Your task to perform on an android device: Play the last video I watched on Youtube Image 0: 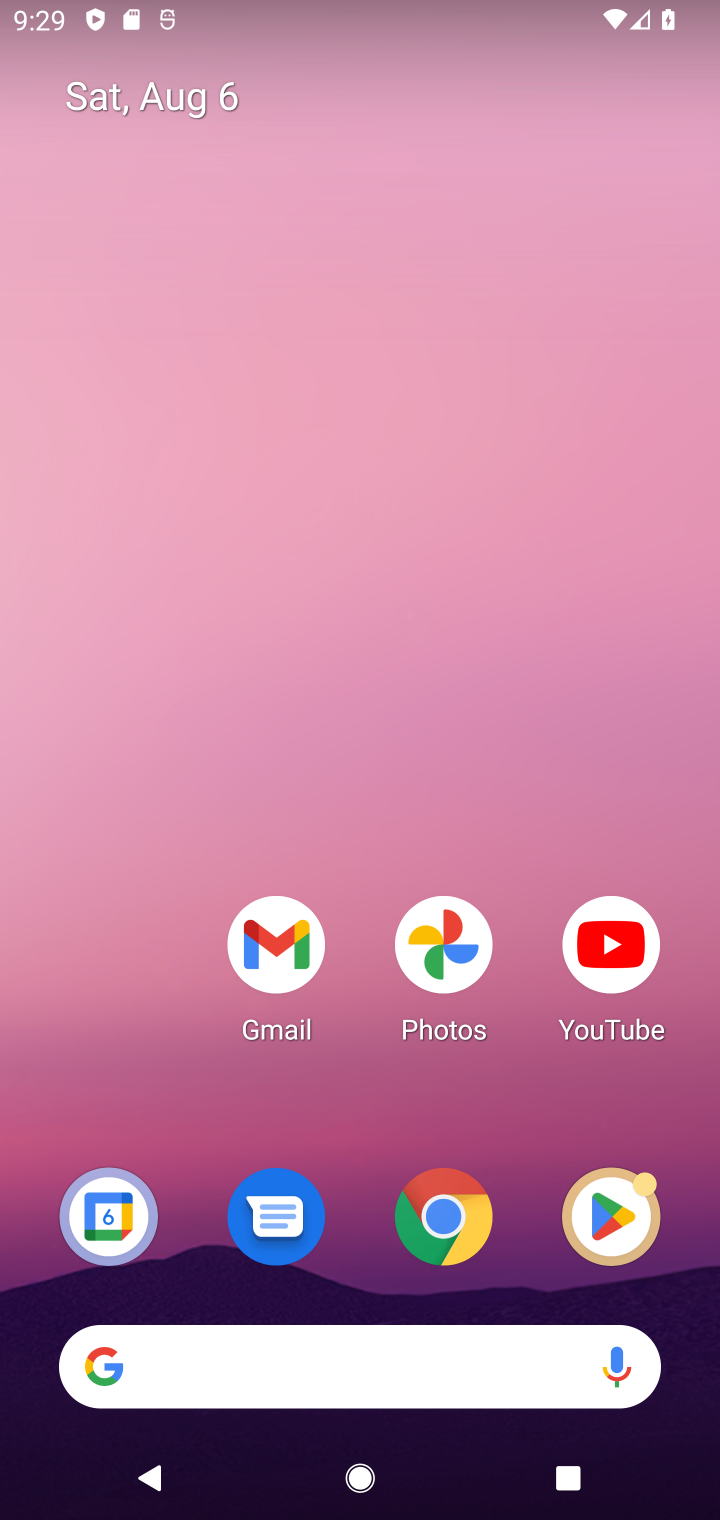
Step 0: drag from (393, 1160) to (383, 351)
Your task to perform on an android device: Play the last video I watched on Youtube Image 1: 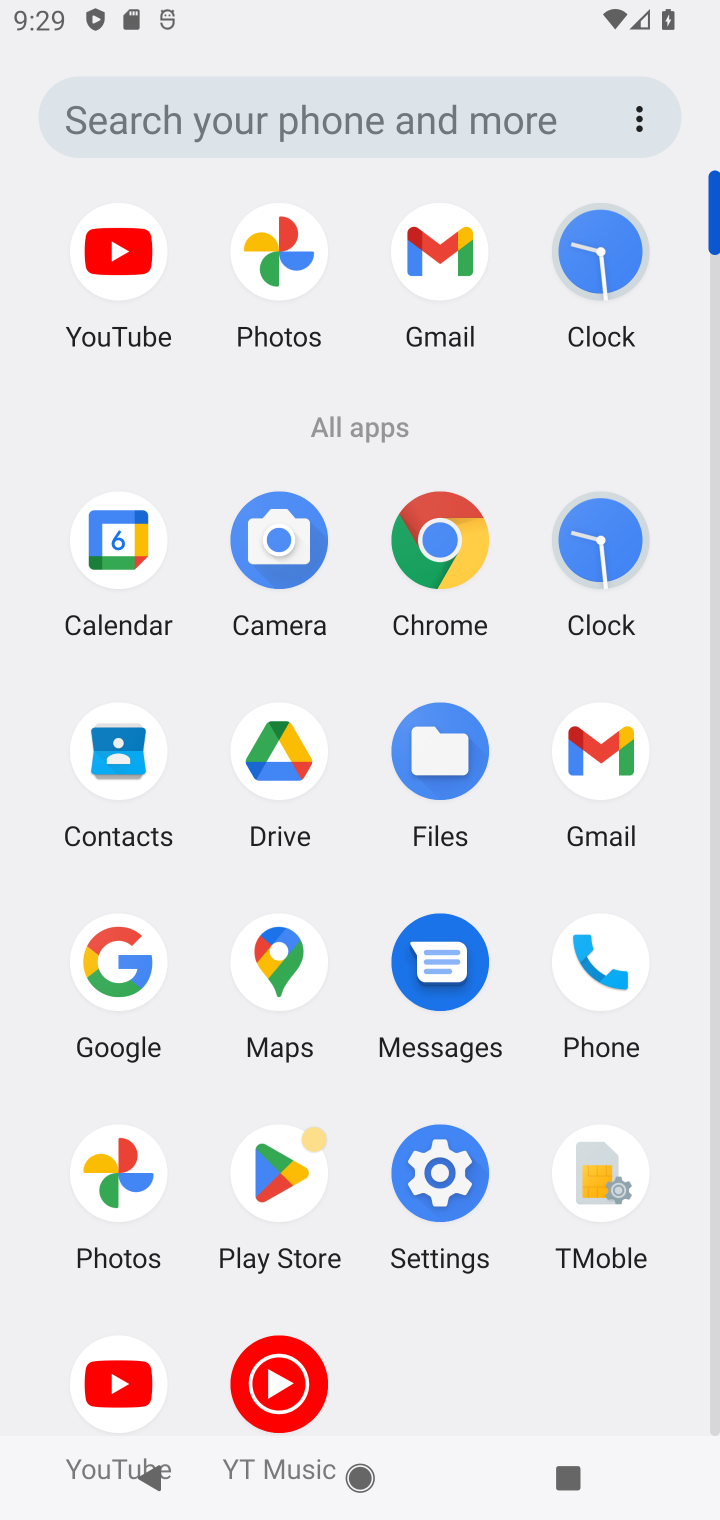
Step 1: click (142, 1389)
Your task to perform on an android device: Play the last video I watched on Youtube Image 2: 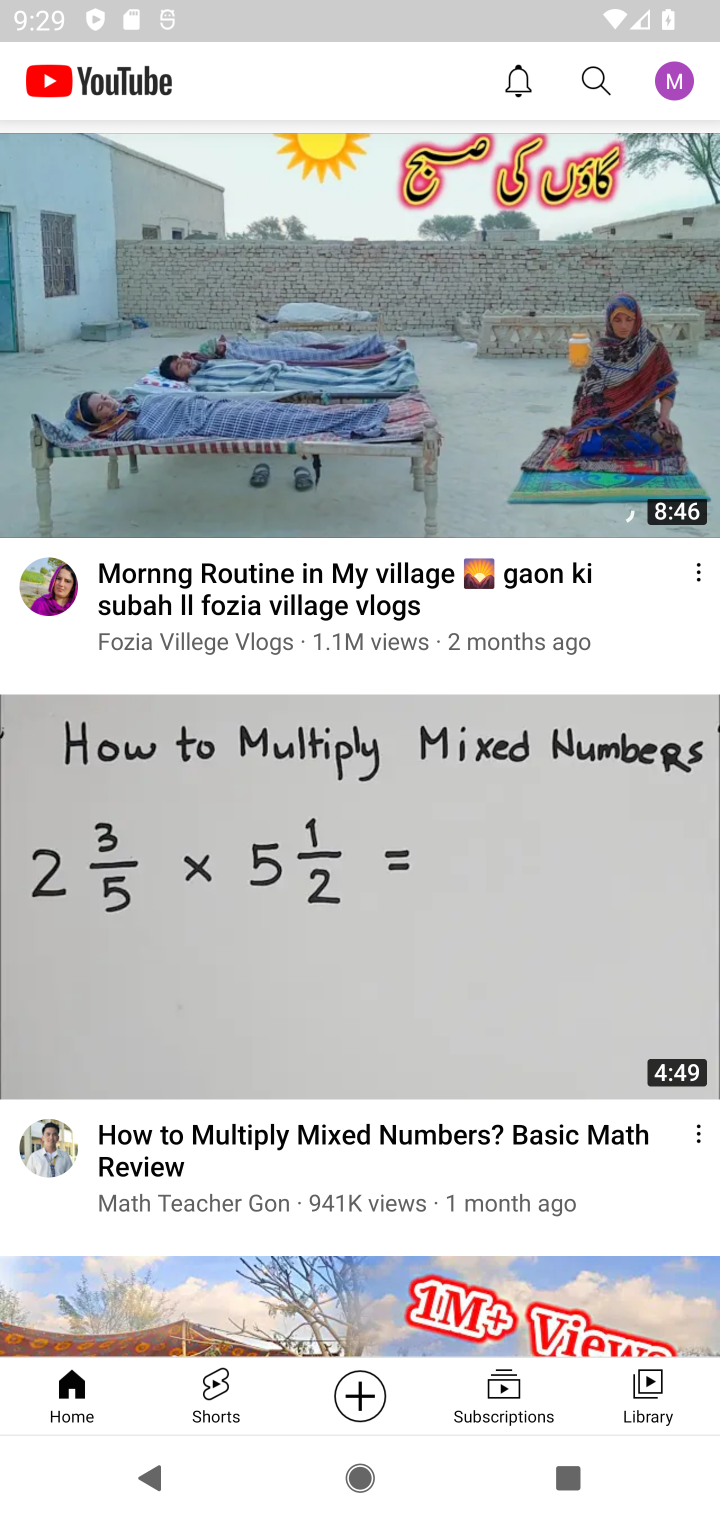
Step 2: click (656, 1385)
Your task to perform on an android device: Play the last video I watched on Youtube Image 3: 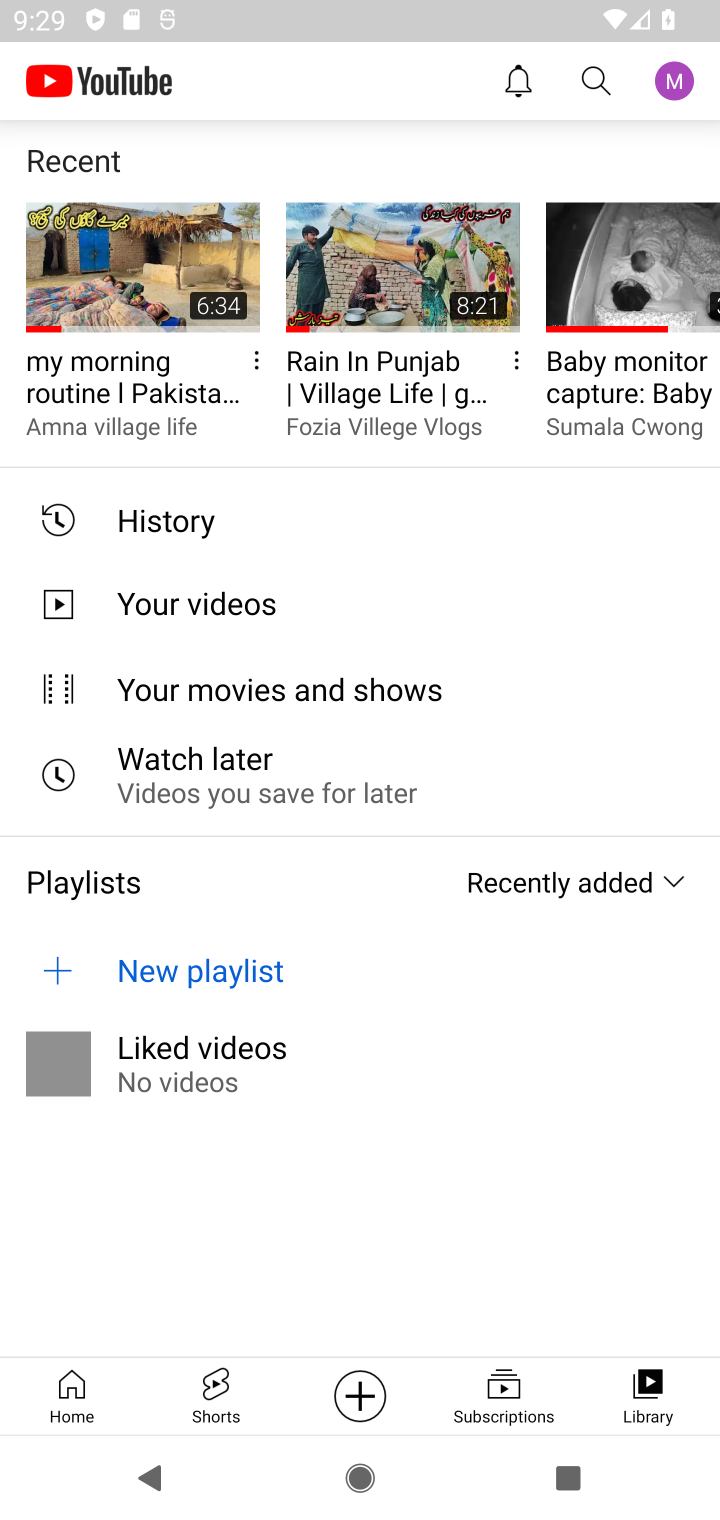
Step 3: click (153, 261)
Your task to perform on an android device: Play the last video I watched on Youtube Image 4: 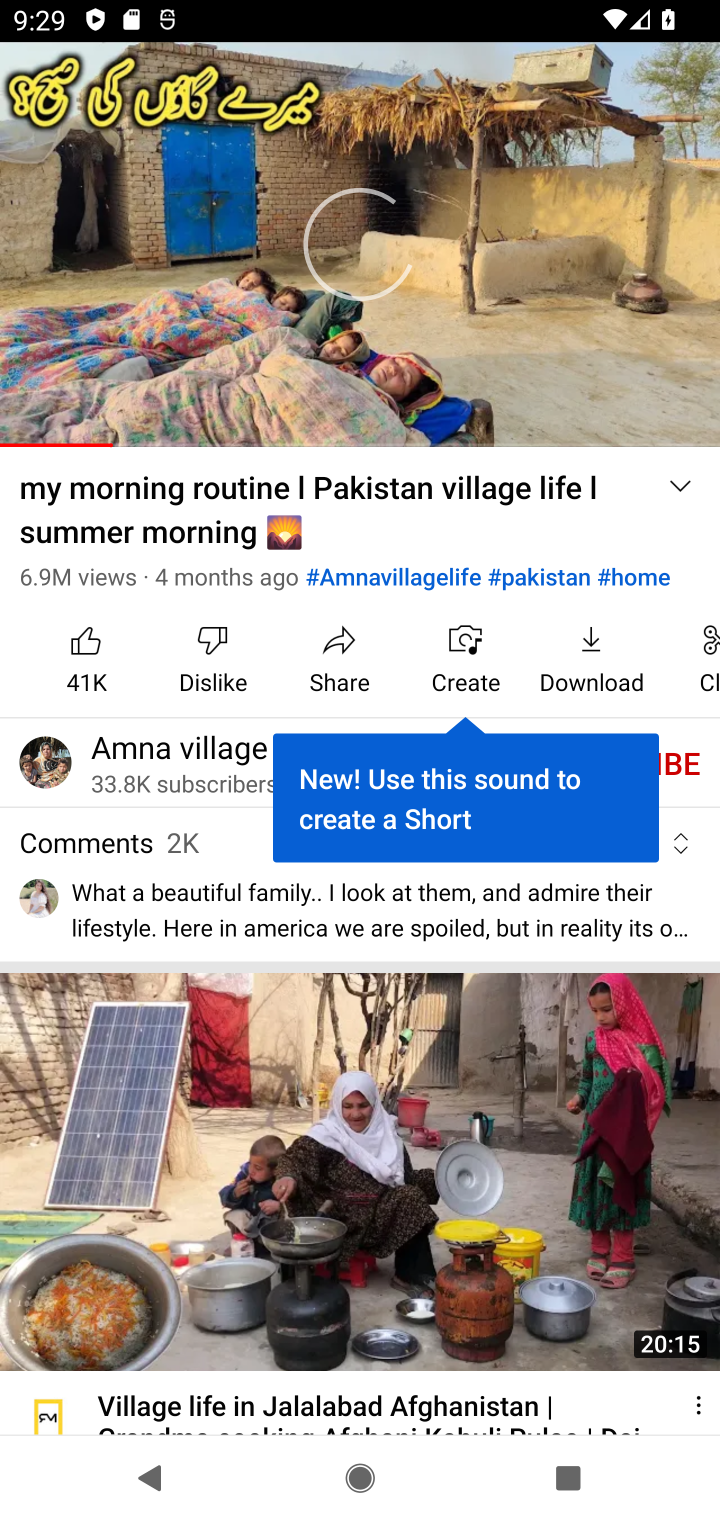
Step 4: task complete